Your task to perform on an android device: snooze an email in the gmail app Image 0: 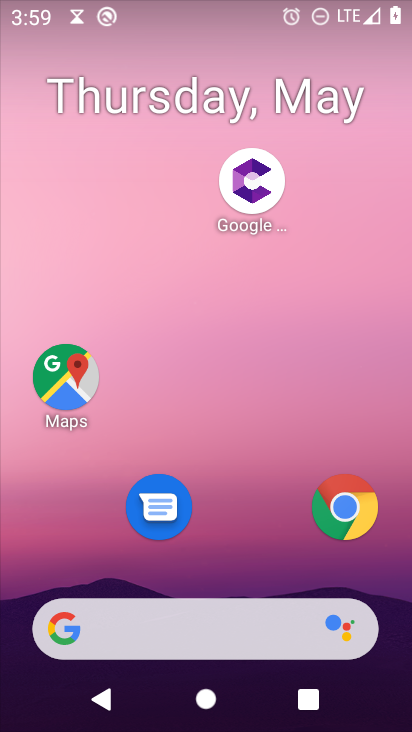
Step 0: press home button
Your task to perform on an android device: snooze an email in the gmail app Image 1: 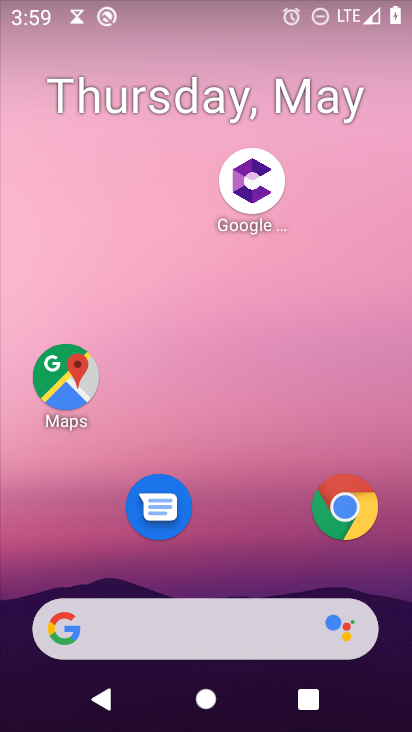
Step 1: drag from (256, 563) to (234, 143)
Your task to perform on an android device: snooze an email in the gmail app Image 2: 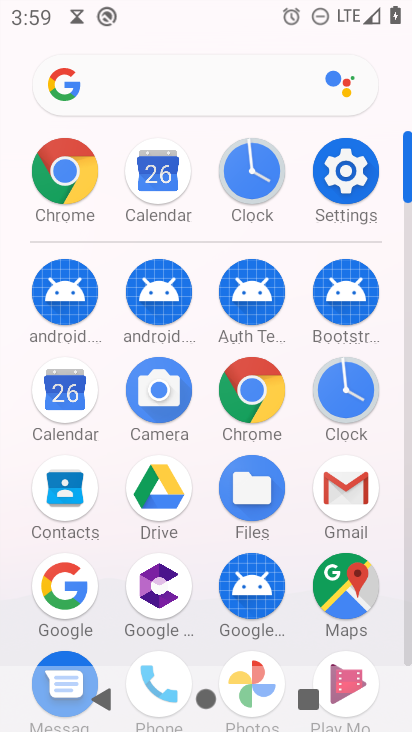
Step 2: click (347, 485)
Your task to perform on an android device: snooze an email in the gmail app Image 3: 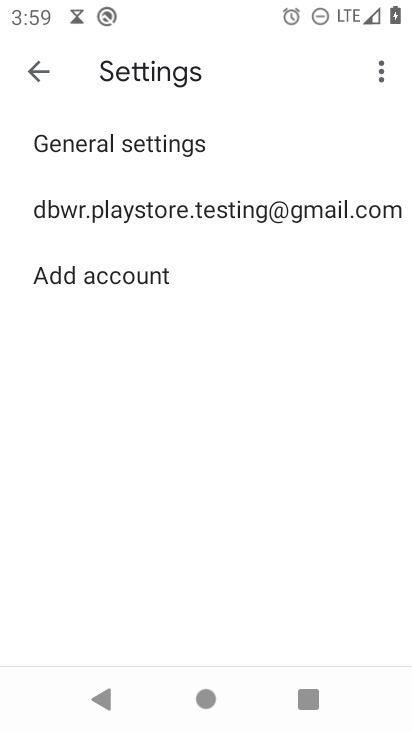
Step 3: click (31, 72)
Your task to perform on an android device: snooze an email in the gmail app Image 4: 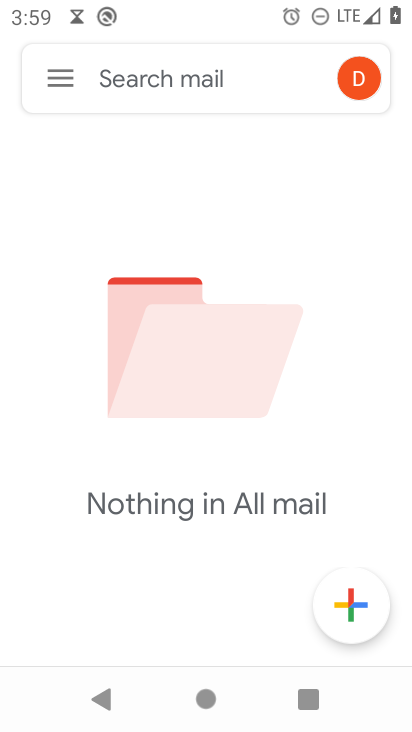
Step 4: click (59, 80)
Your task to perform on an android device: snooze an email in the gmail app Image 5: 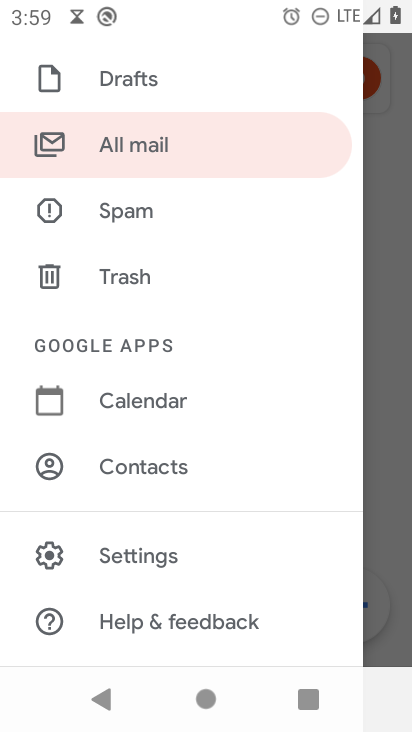
Step 5: drag from (255, 204) to (250, 624)
Your task to perform on an android device: snooze an email in the gmail app Image 6: 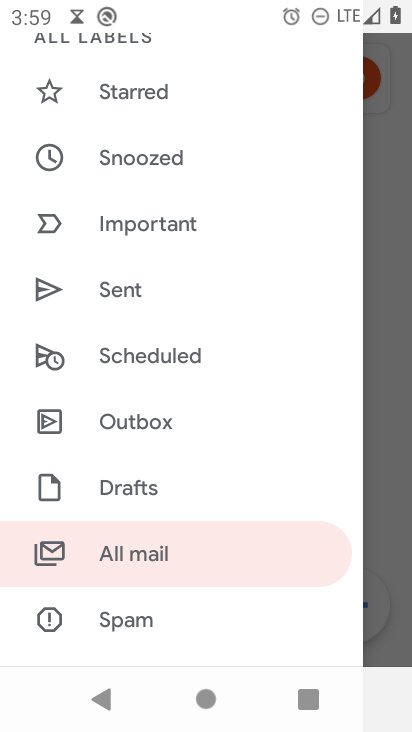
Step 6: click (145, 154)
Your task to perform on an android device: snooze an email in the gmail app Image 7: 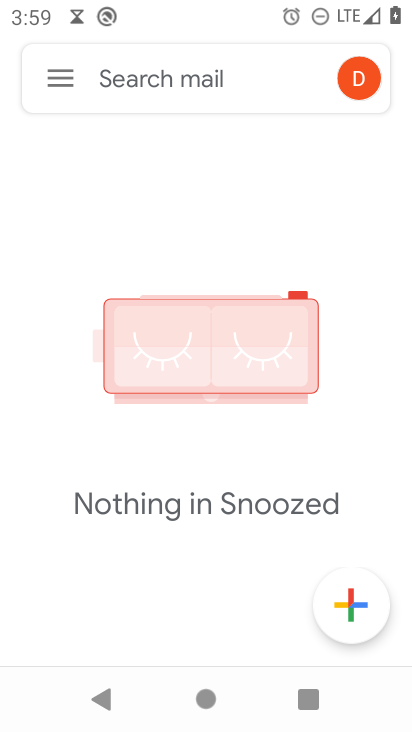
Step 7: task complete